Your task to perform on an android device: Open calendar and show me the third week of next month Image 0: 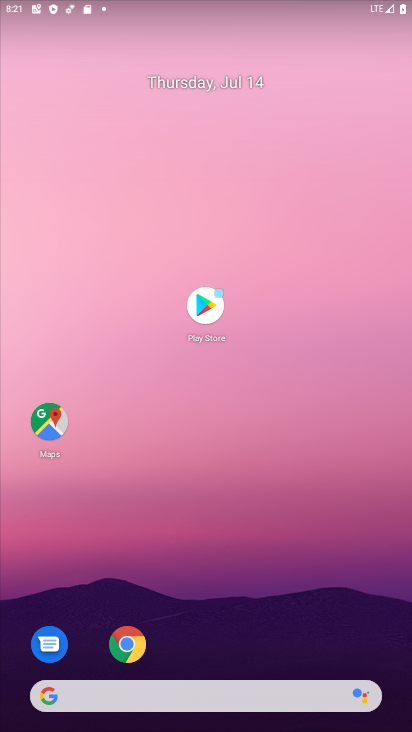
Step 0: drag from (164, 674) to (310, 45)
Your task to perform on an android device: Open calendar and show me the third week of next month Image 1: 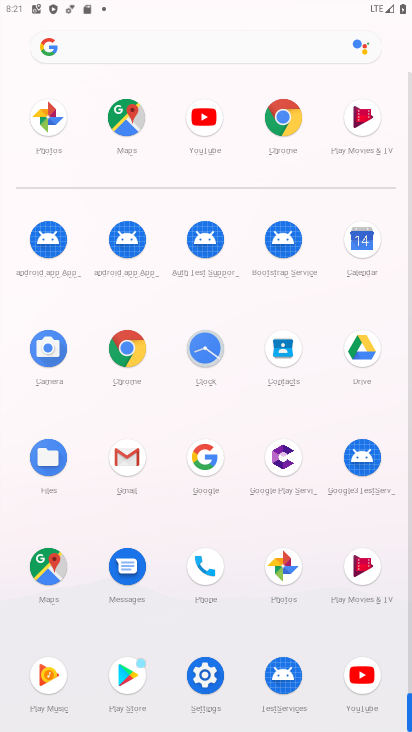
Step 1: click (360, 255)
Your task to perform on an android device: Open calendar and show me the third week of next month Image 2: 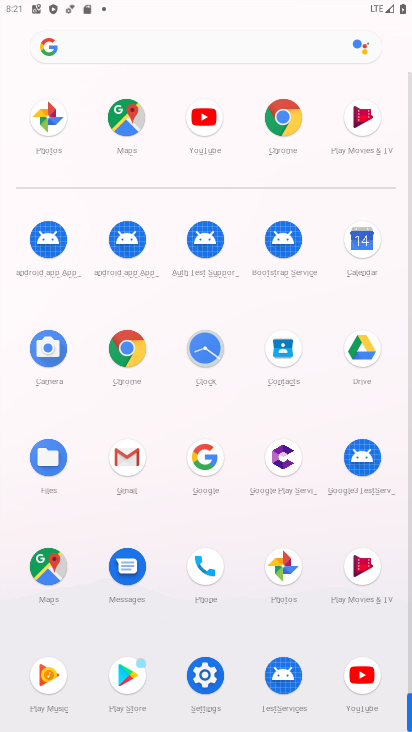
Step 2: click (360, 255)
Your task to perform on an android device: Open calendar and show me the third week of next month Image 3: 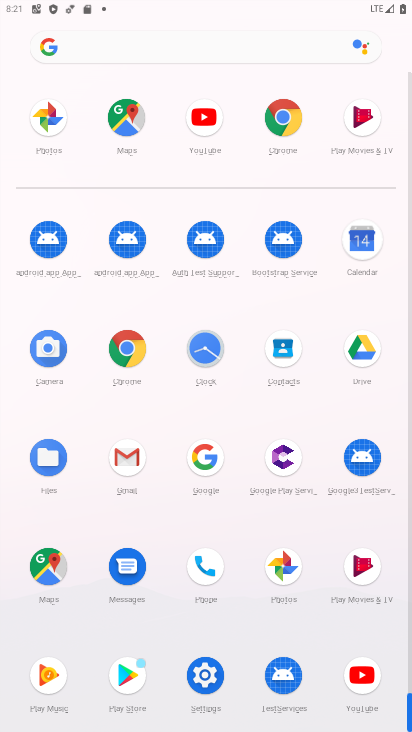
Step 3: click (360, 255)
Your task to perform on an android device: Open calendar and show me the third week of next month Image 4: 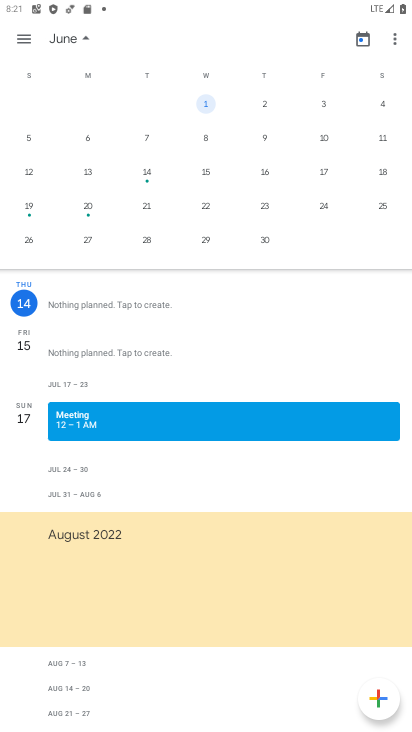
Step 4: drag from (4, 219) to (23, 251)
Your task to perform on an android device: Open calendar and show me the third week of next month Image 5: 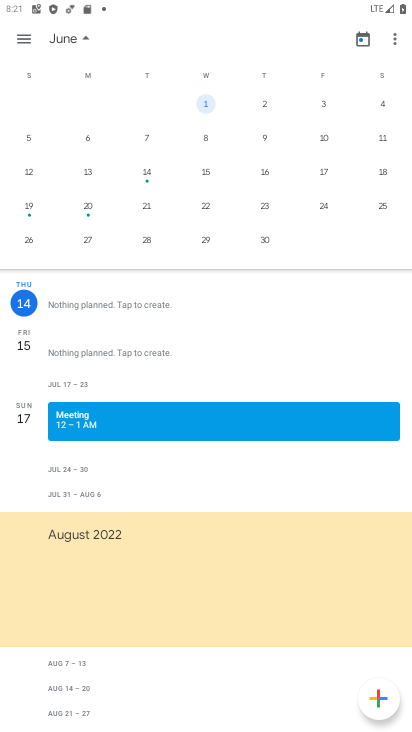
Step 5: drag from (374, 184) to (71, 168)
Your task to perform on an android device: Open calendar and show me the third week of next month Image 6: 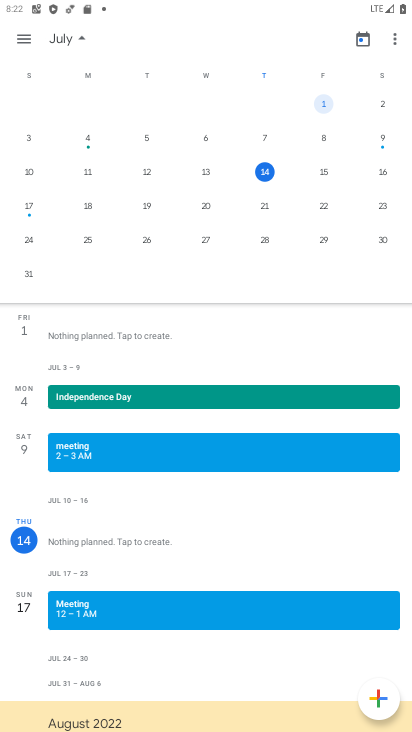
Step 6: click (355, 41)
Your task to perform on an android device: Open calendar and show me the third week of next month Image 7: 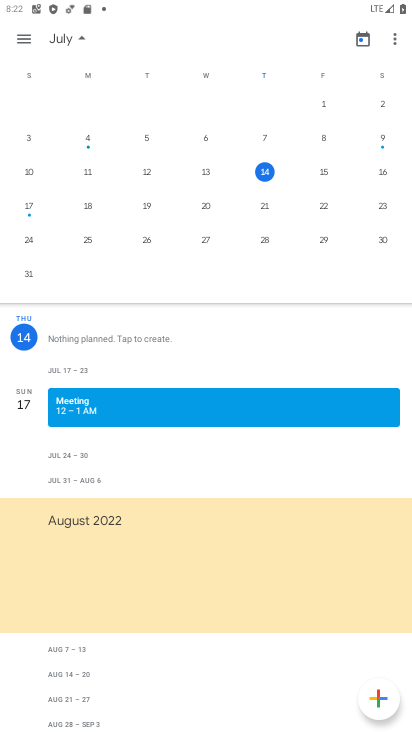
Step 7: drag from (362, 157) to (0, 189)
Your task to perform on an android device: Open calendar and show me the third week of next month Image 8: 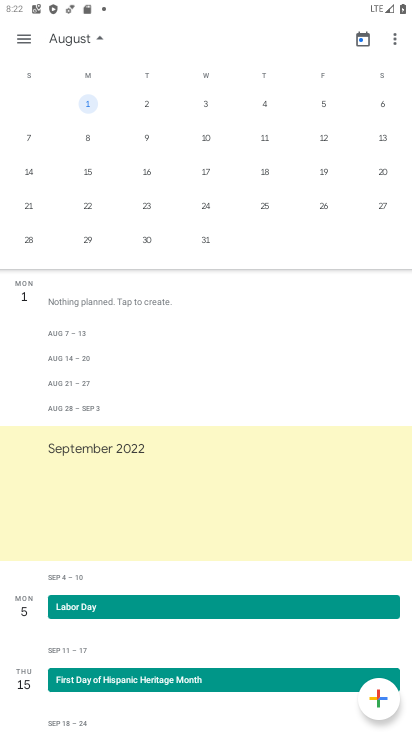
Step 8: click (324, 169)
Your task to perform on an android device: Open calendar and show me the third week of next month Image 9: 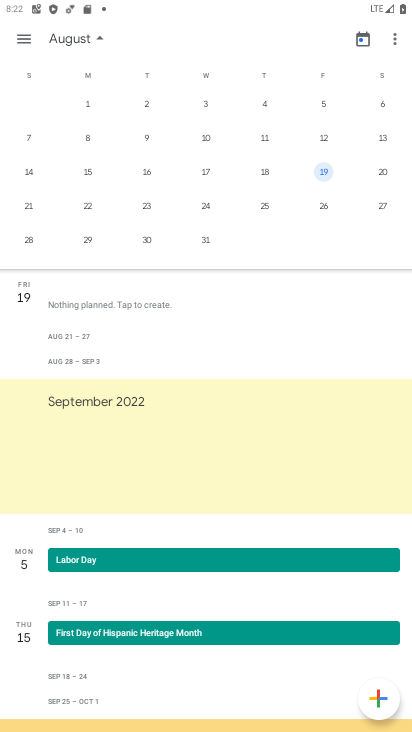
Step 9: task complete